Your task to perform on an android device: all mails in gmail Image 0: 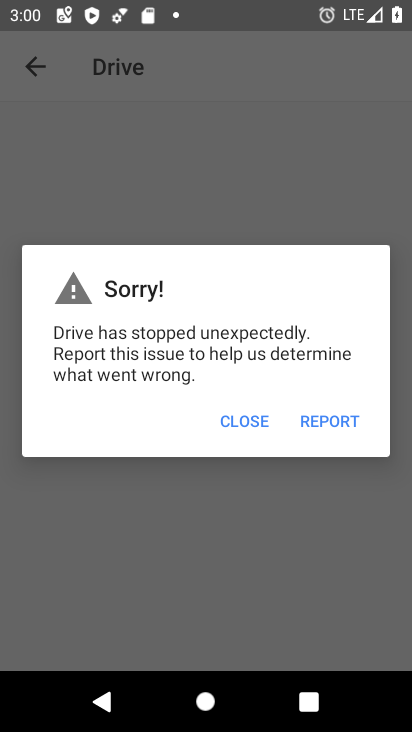
Step 0: press home button
Your task to perform on an android device: all mails in gmail Image 1: 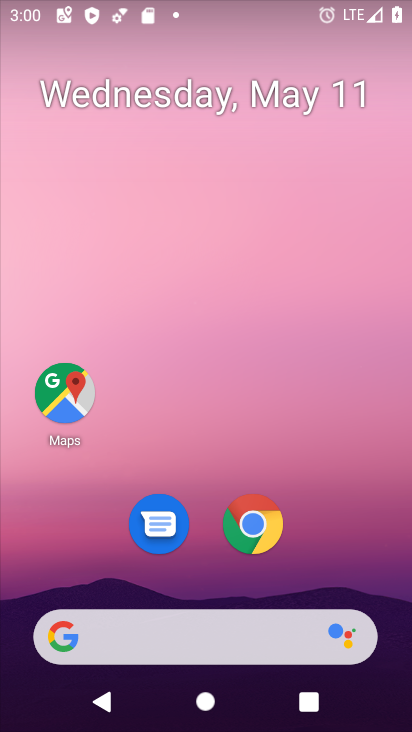
Step 1: drag from (300, 530) to (272, 39)
Your task to perform on an android device: all mails in gmail Image 2: 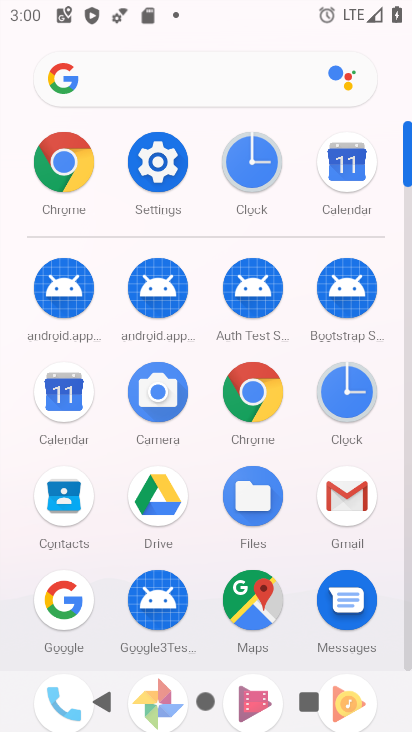
Step 2: click (347, 500)
Your task to perform on an android device: all mails in gmail Image 3: 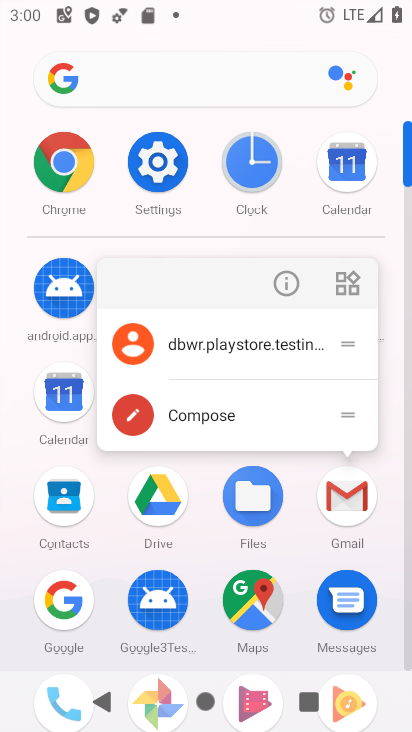
Step 3: click (347, 501)
Your task to perform on an android device: all mails in gmail Image 4: 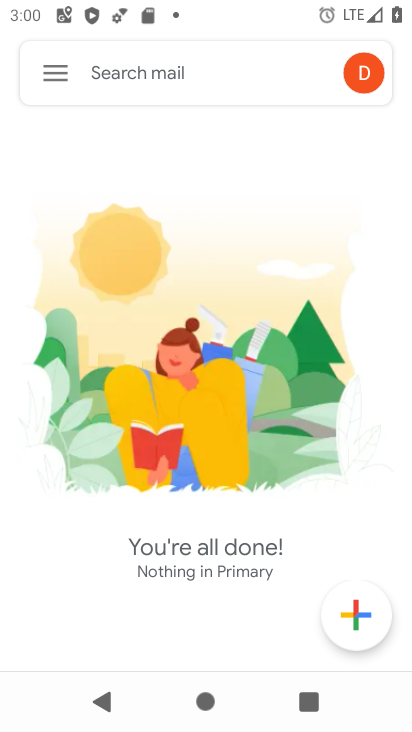
Step 4: click (55, 76)
Your task to perform on an android device: all mails in gmail Image 5: 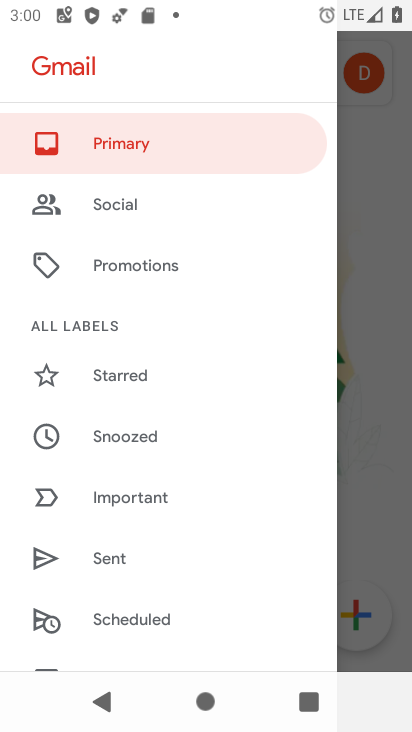
Step 5: drag from (172, 538) to (193, 105)
Your task to perform on an android device: all mails in gmail Image 6: 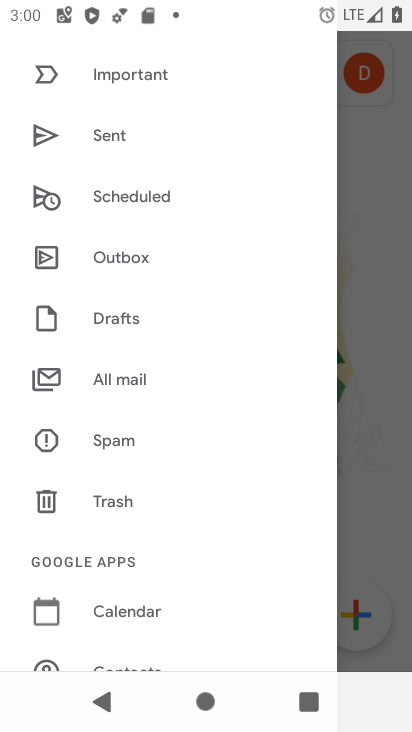
Step 6: click (143, 369)
Your task to perform on an android device: all mails in gmail Image 7: 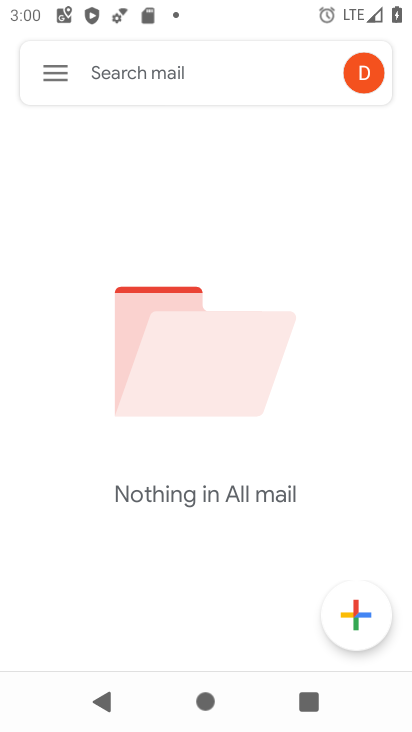
Step 7: task complete